Your task to perform on an android device: Go to location settings Image 0: 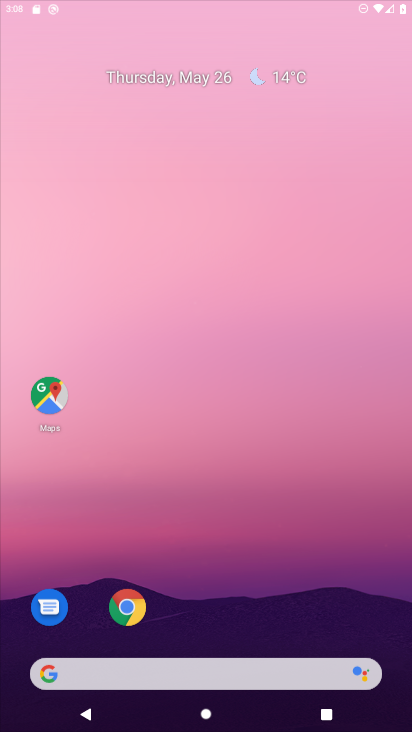
Step 0: click (323, 40)
Your task to perform on an android device: Go to location settings Image 1: 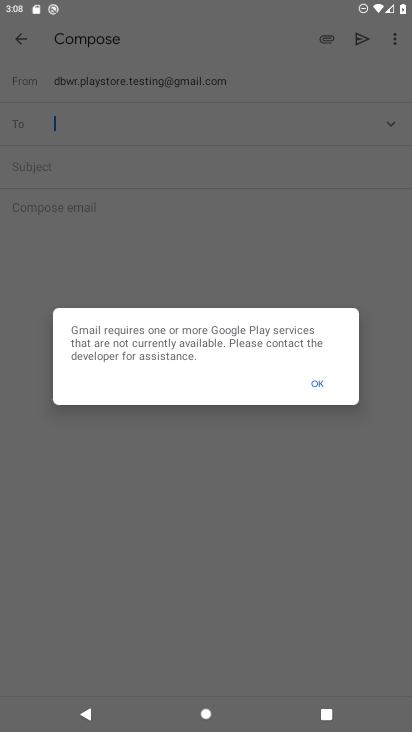
Step 1: press home button
Your task to perform on an android device: Go to location settings Image 2: 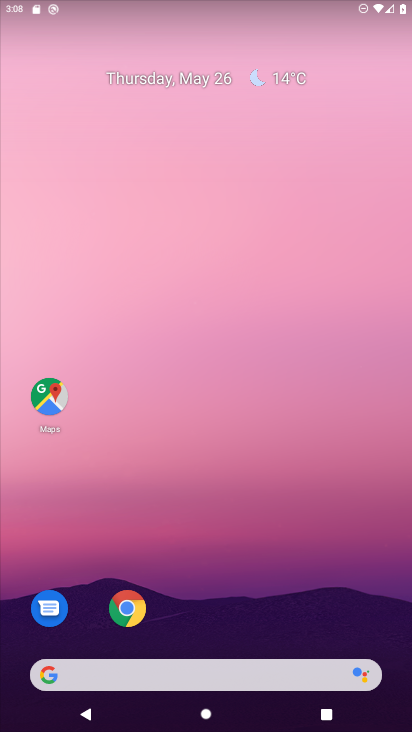
Step 2: drag from (350, 447) to (338, 104)
Your task to perform on an android device: Go to location settings Image 3: 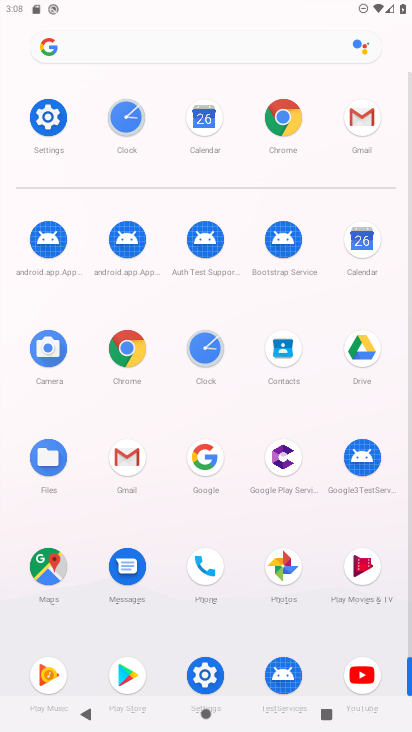
Step 3: click (49, 123)
Your task to perform on an android device: Go to location settings Image 4: 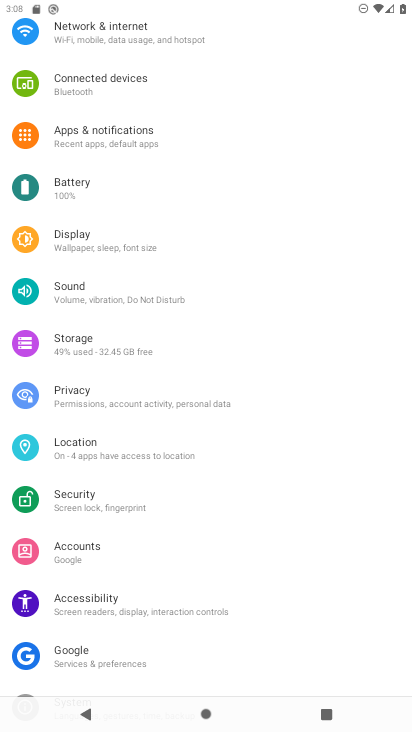
Step 4: drag from (230, 212) to (334, 694)
Your task to perform on an android device: Go to location settings Image 5: 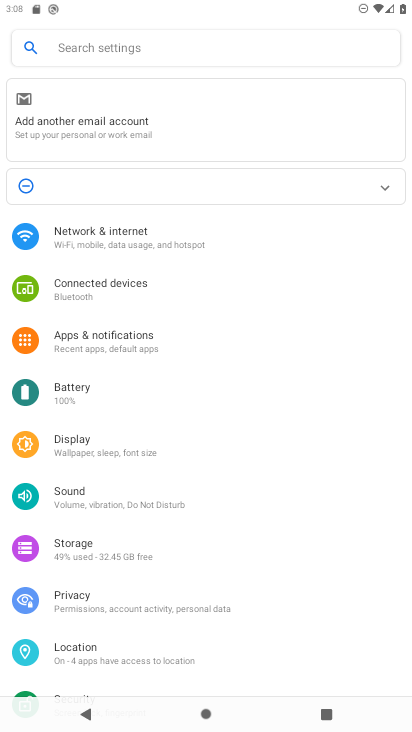
Step 5: drag from (283, 641) to (334, 198)
Your task to perform on an android device: Go to location settings Image 6: 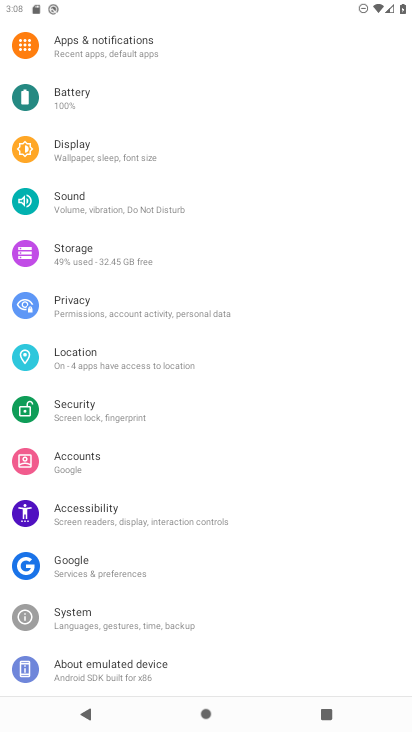
Step 6: click (89, 356)
Your task to perform on an android device: Go to location settings Image 7: 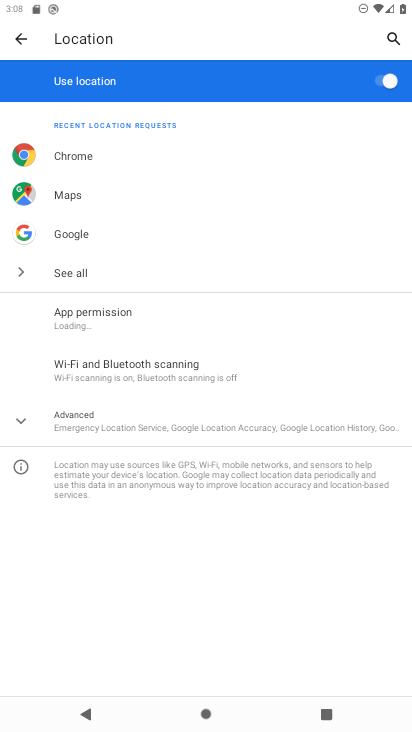
Step 7: task complete